Your task to perform on an android device: star an email in the gmail app Image 0: 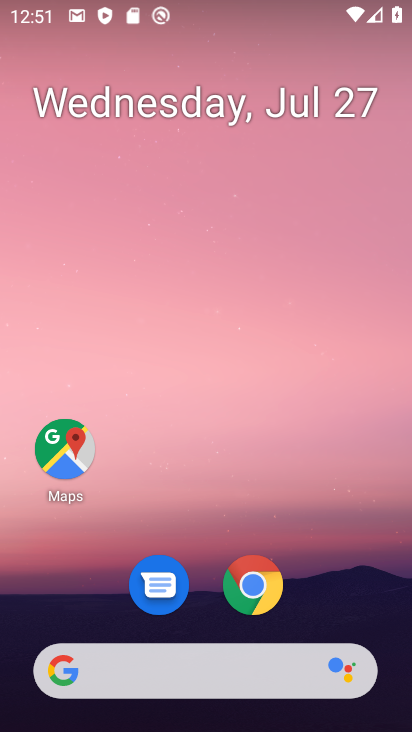
Step 0: press home button
Your task to perform on an android device: star an email in the gmail app Image 1: 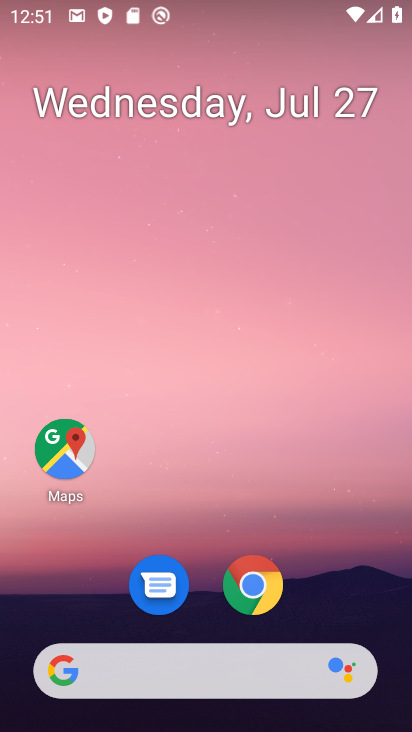
Step 1: drag from (193, 668) to (309, 145)
Your task to perform on an android device: star an email in the gmail app Image 2: 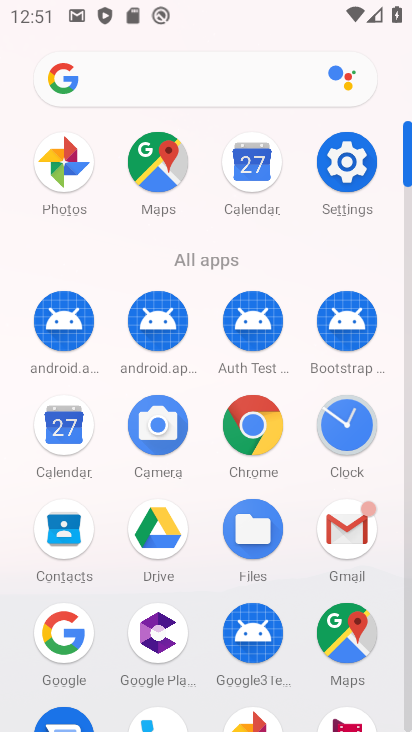
Step 2: click (342, 531)
Your task to perform on an android device: star an email in the gmail app Image 3: 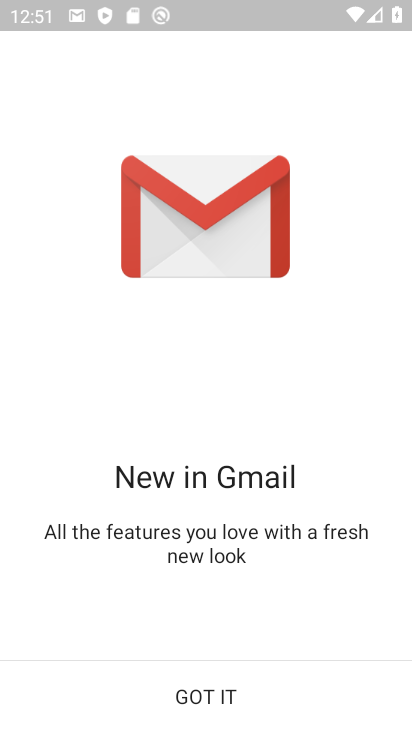
Step 3: click (209, 695)
Your task to perform on an android device: star an email in the gmail app Image 4: 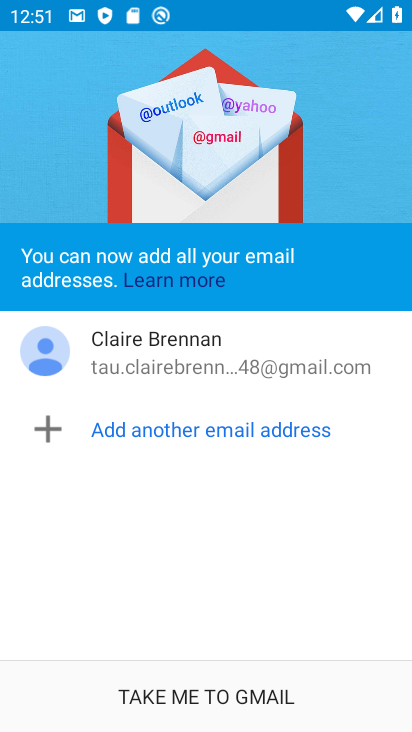
Step 4: click (209, 694)
Your task to perform on an android device: star an email in the gmail app Image 5: 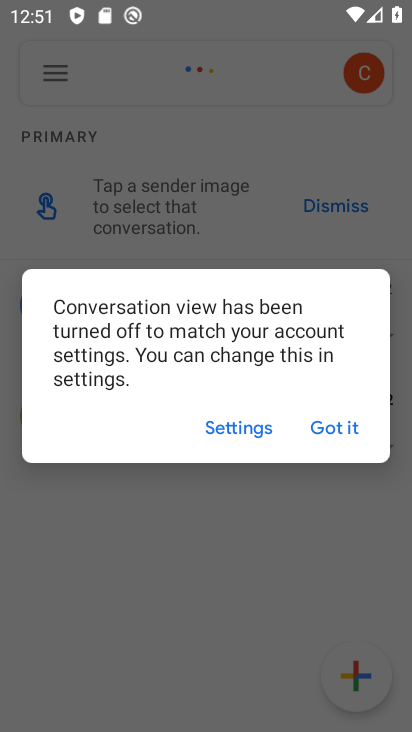
Step 5: click (345, 420)
Your task to perform on an android device: star an email in the gmail app Image 6: 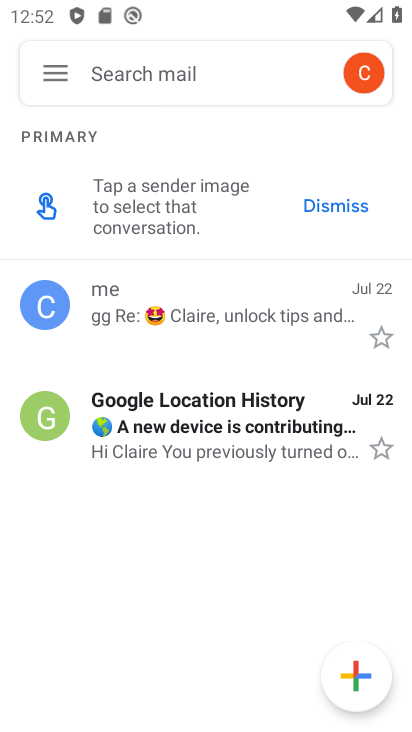
Step 6: click (51, 303)
Your task to perform on an android device: star an email in the gmail app Image 7: 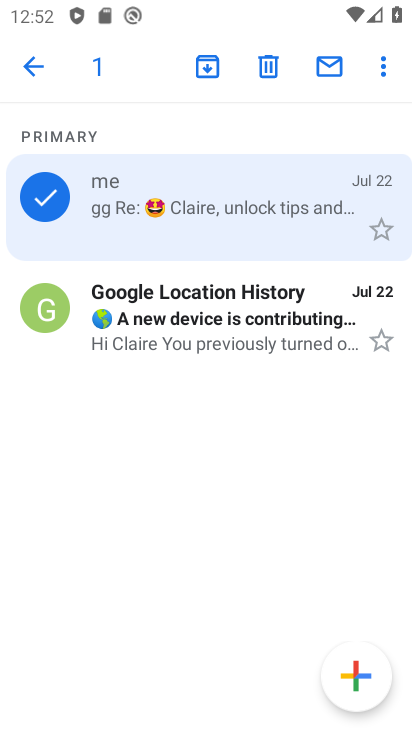
Step 7: click (381, 66)
Your task to perform on an android device: star an email in the gmail app Image 8: 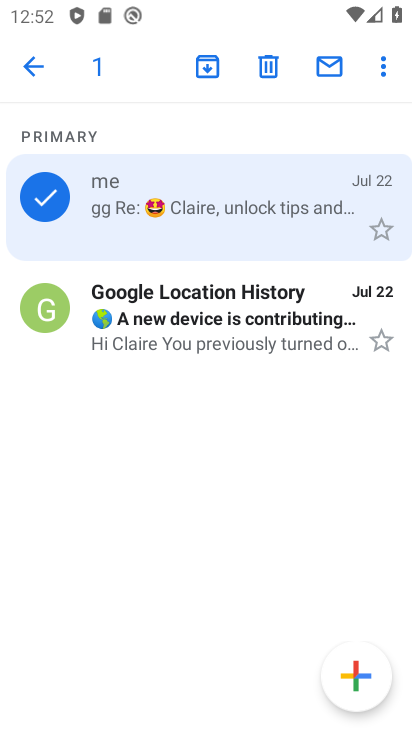
Step 8: click (381, 61)
Your task to perform on an android device: star an email in the gmail app Image 9: 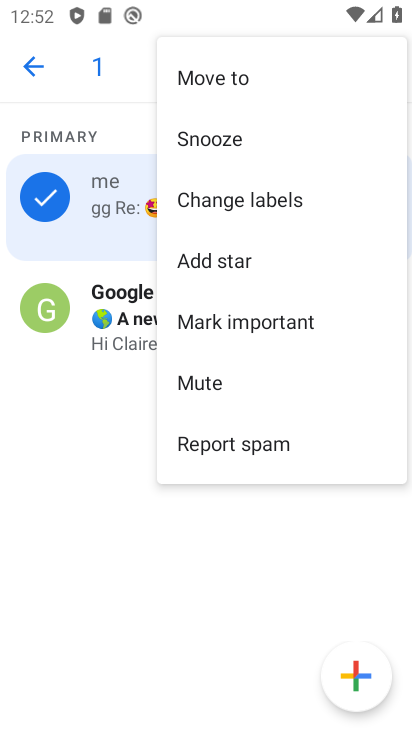
Step 9: click (231, 258)
Your task to perform on an android device: star an email in the gmail app Image 10: 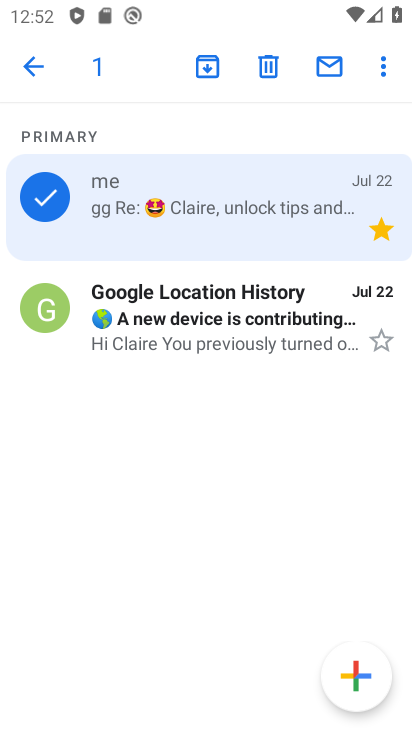
Step 10: click (39, 206)
Your task to perform on an android device: star an email in the gmail app Image 11: 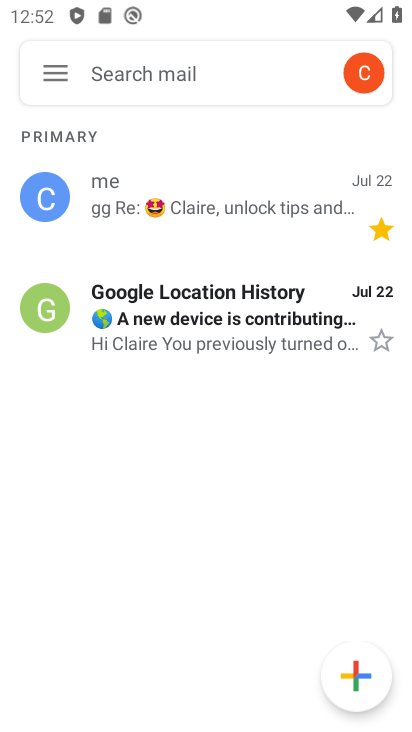
Step 11: task complete